Your task to perform on an android device: toggle location history Image 0: 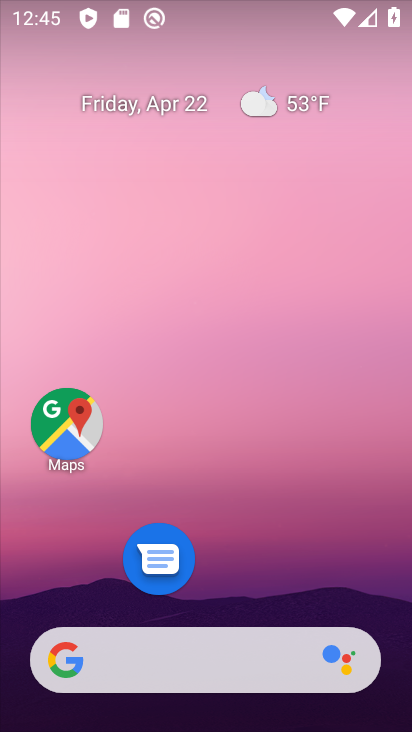
Step 0: drag from (227, 658) to (225, 131)
Your task to perform on an android device: toggle location history Image 1: 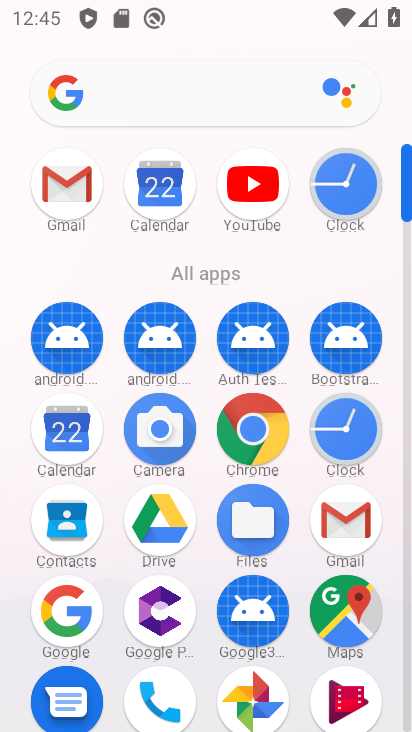
Step 1: drag from (202, 652) to (202, 224)
Your task to perform on an android device: toggle location history Image 2: 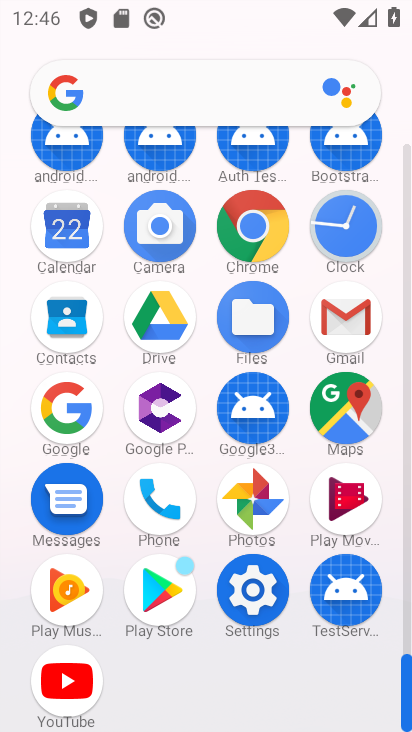
Step 2: click (253, 603)
Your task to perform on an android device: toggle location history Image 3: 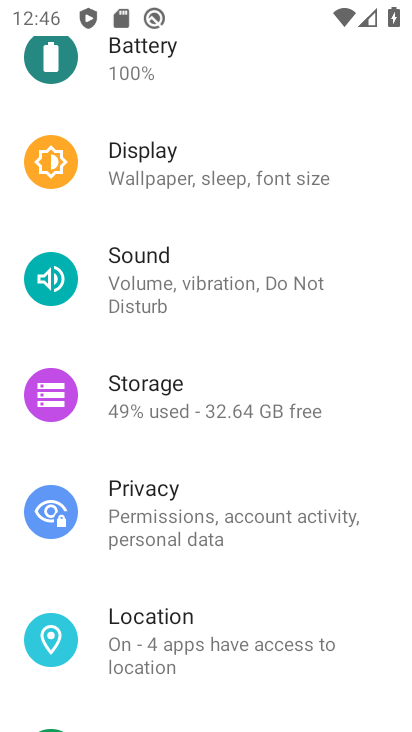
Step 3: click (153, 633)
Your task to perform on an android device: toggle location history Image 4: 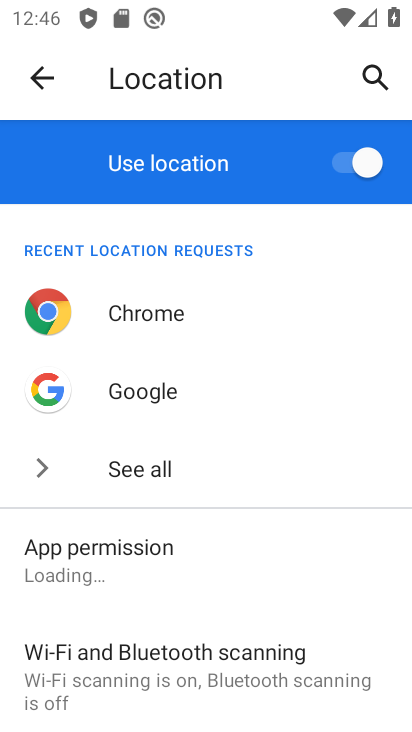
Step 4: drag from (221, 684) to (233, 431)
Your task to perform on an android device: toggle location history Image 5: 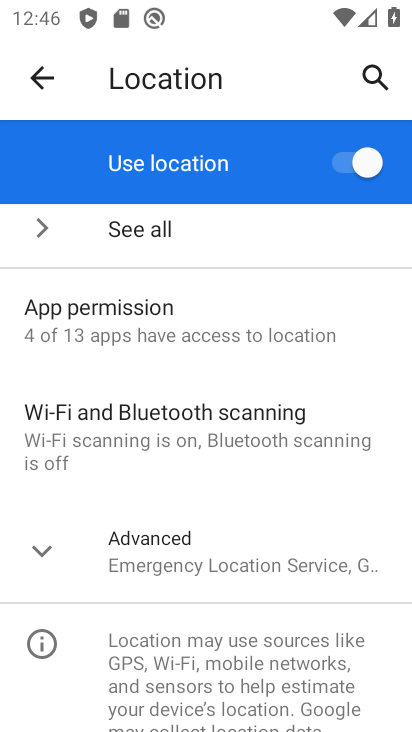
Step 5: click (168, 556)
Your task to perform on an android device: toggle location history Image 6: 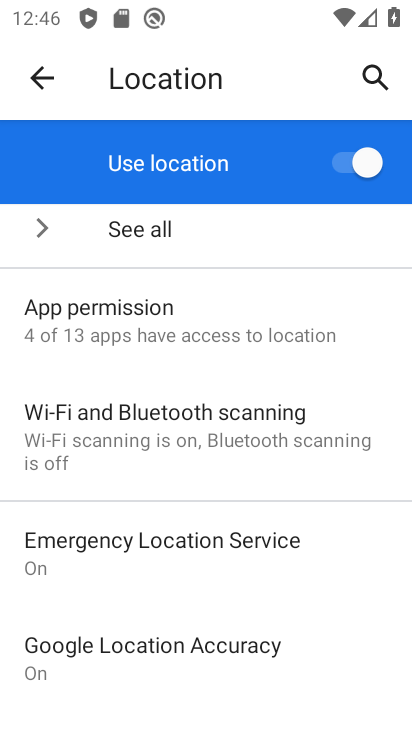
Step 6: drag from (214, 675) to (215, 315)
Your task to perform on an android device: toggle location history Image 7: 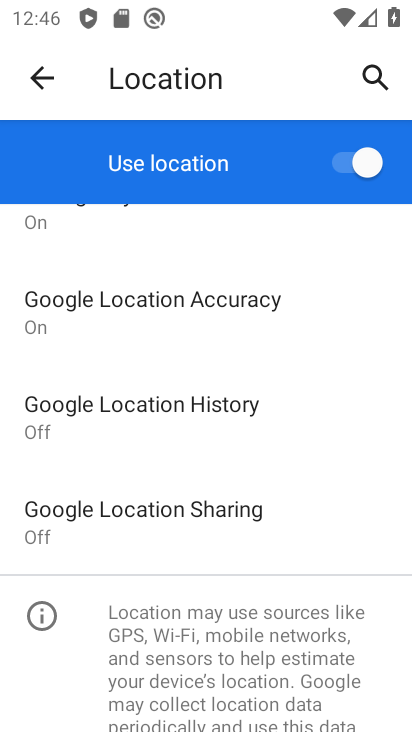
Step 7: click (126, 403)
Your task to perform on an android device: toggle location history Image 8: 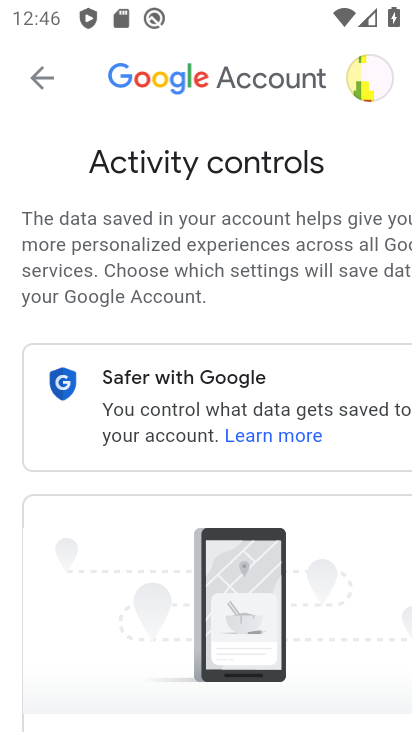
Step 8: drag from (282, 640) to (270, 232)
Your task to perform on an android device: toggle location history Image 9: 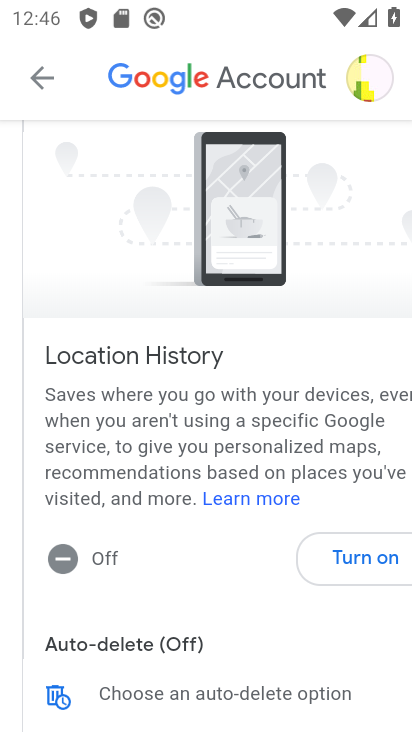
Step 9: click (357, 558)
Your task to perform on an android device: toggle location history Image 10: 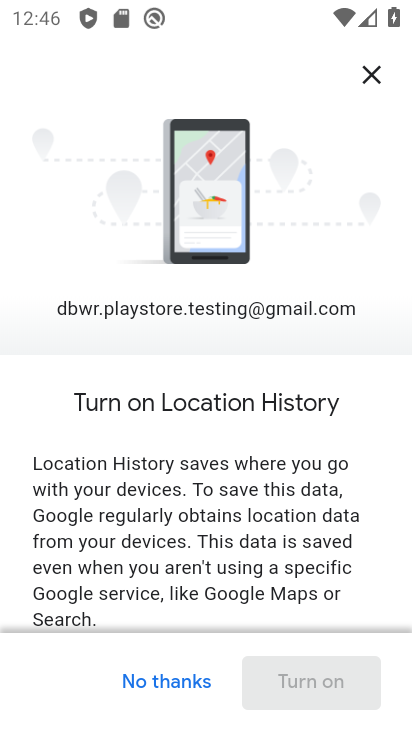
Step 10: drag from (257, 573) to (254, 273)
Your task to perform on an android device: toggle location history Image 11: 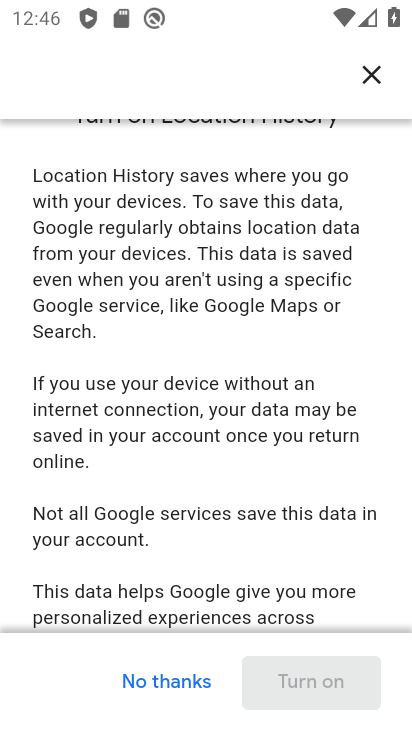
Step 11: drag from (284, 582) to (281, 208)
Your task to perform on an android device: toggle location history Image 12: 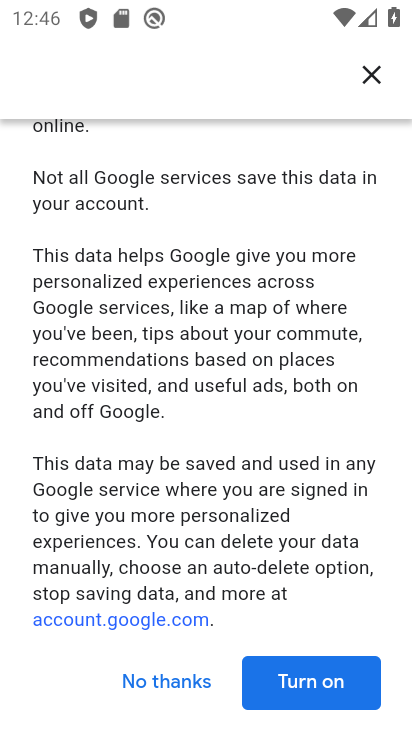
Step 12: click (304, 680)
Your task to perform on an android device: toggle location history Image 13: 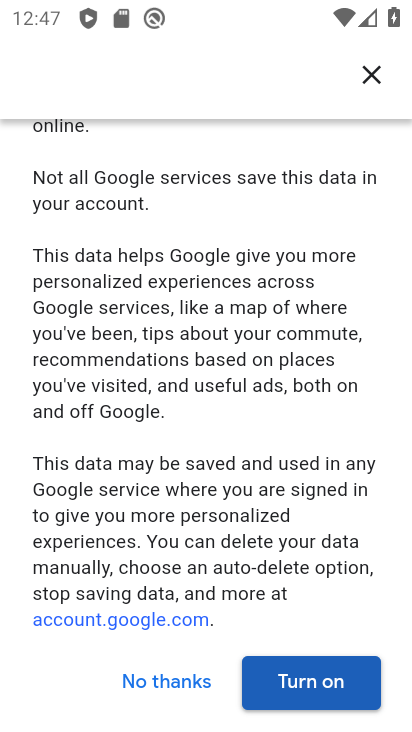
Step 13: click (321, 680)
Your task to perform on an android device: toggle location history Image 14: 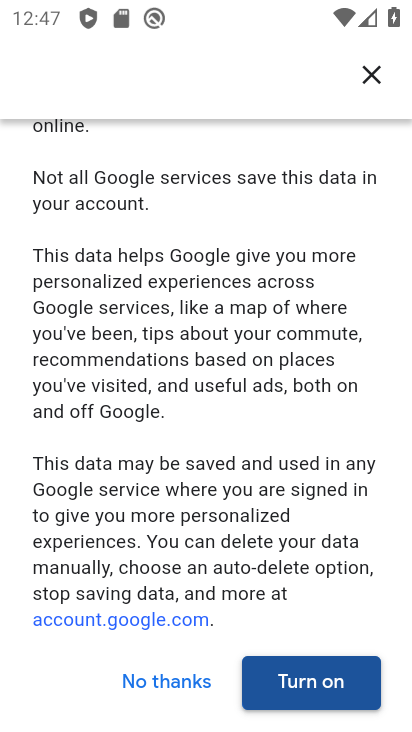
Step 14: click (321, 683)
Your task to perform on an android device: toggle location history Image 15: 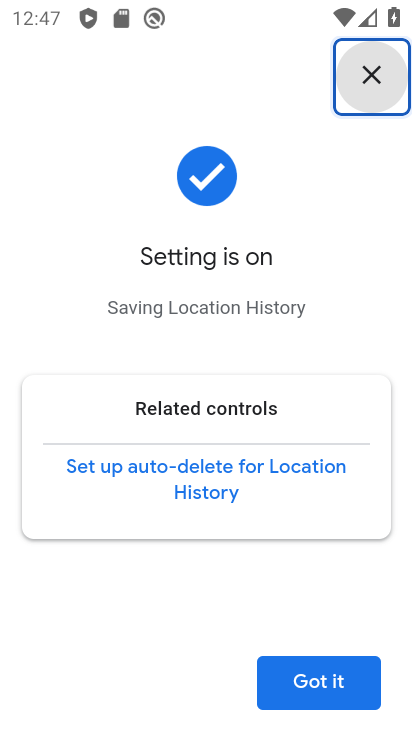
Step 15: task complete